Your task to perform on an android device: change your default location settings in chrome Image 0: 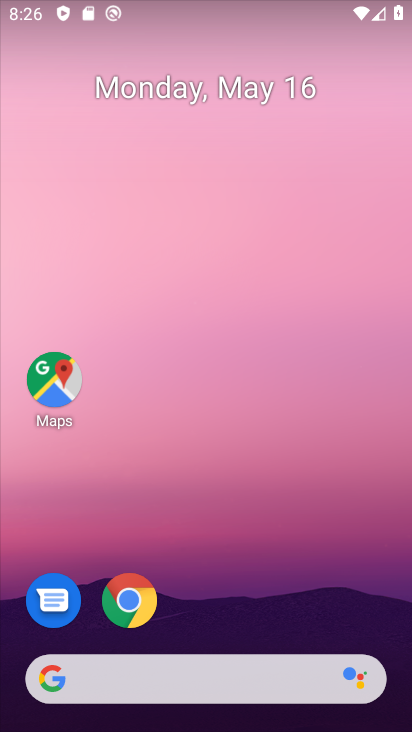
Step 0: click (130, 599)
Your task to perform on an android device: change your default location settings in chrome Image 1: 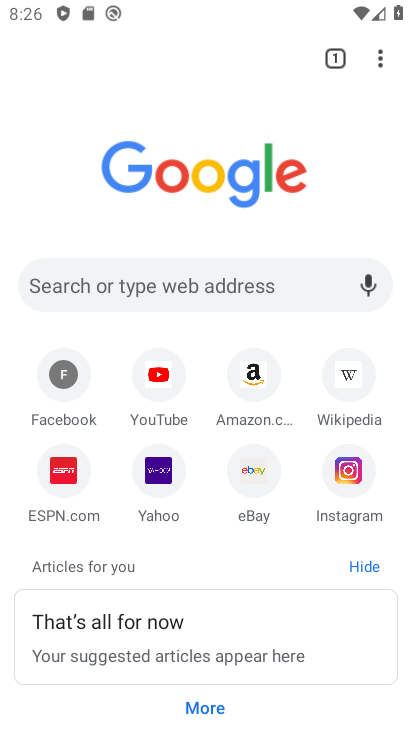
Step 1: click (379, 62)
Your task to perform on an android device: change your default location settings in chrome Image 2: 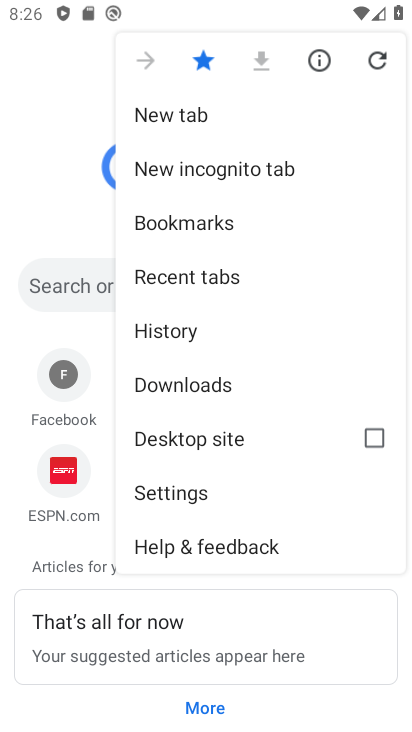
Step 2: click (190, 493)
Your task to perform on an android device: change your default location settings in chrome Image 3: 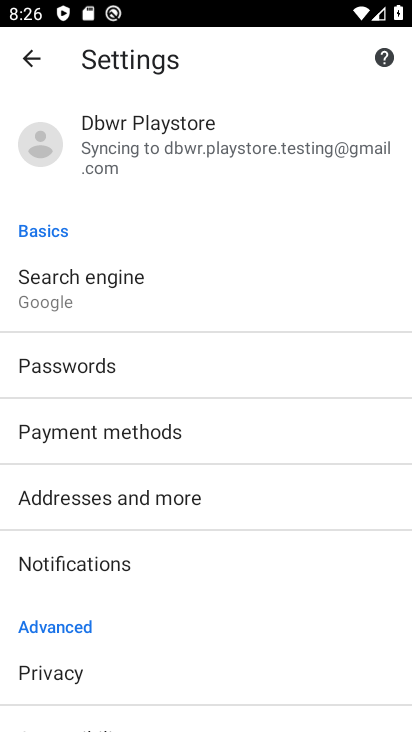
Step 3: drag from (194, 636) to (231, 213)
Your task to perform on an android device: change your default location settings in chrome Image 4: 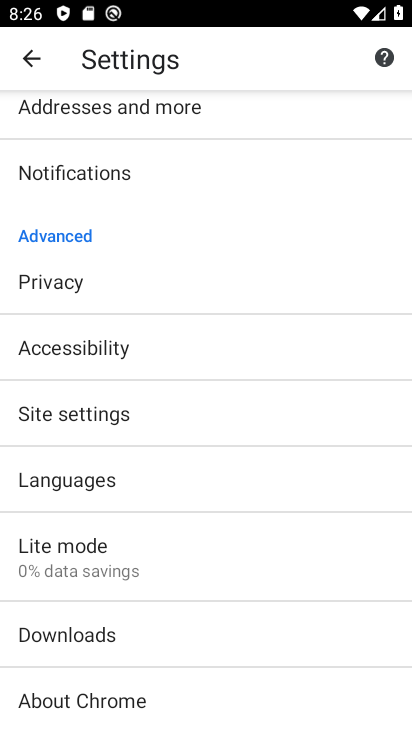
Step 4: click (68, 416)
Your task to perform on an android device: change your default location settings in chrome Image 5: 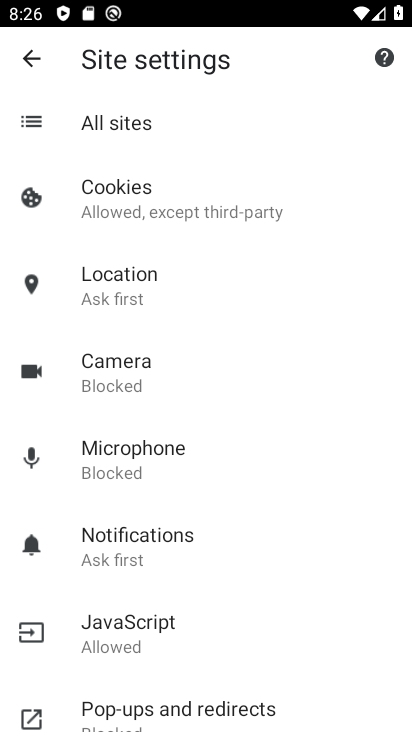
Step 5: click (100, 280)
Your task to perform on an android device: change your default location settings in chrome Image 6: 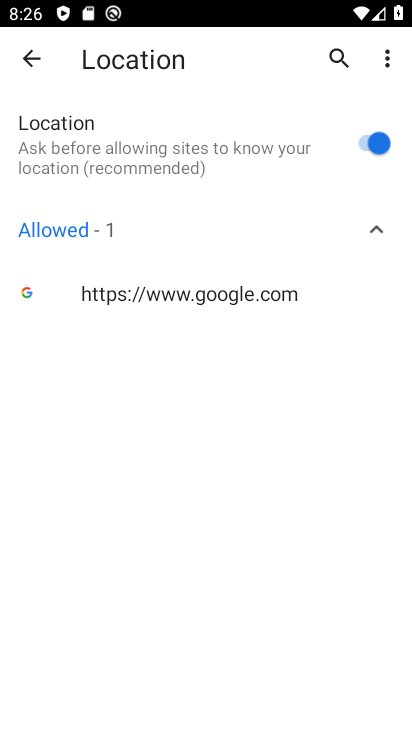
Step 6: click (360, 142)
Your task to perform on an android device: change your default location settings in chrome Image 7: 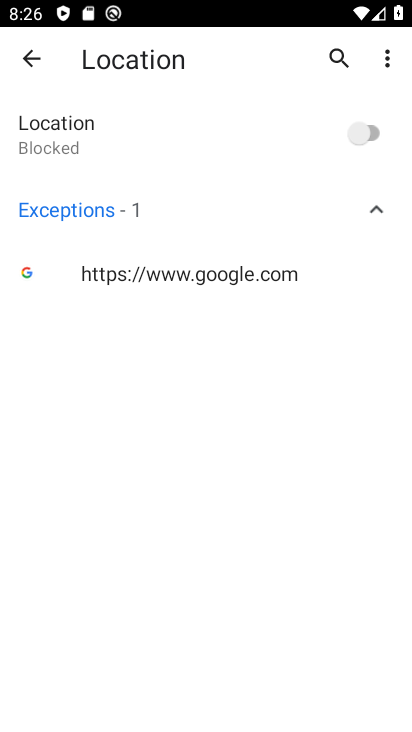
Step 7: task complete